Your task to perform on an android device: Open Google Maps and go to "Timeline" Image 0: 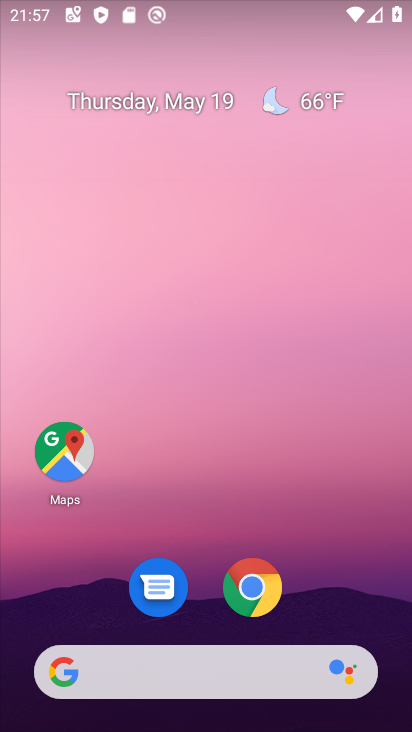
Step 0: click (384, 395)
Your task to perform on an android device: Open Google Maps and go to "Timeline" Image 1: 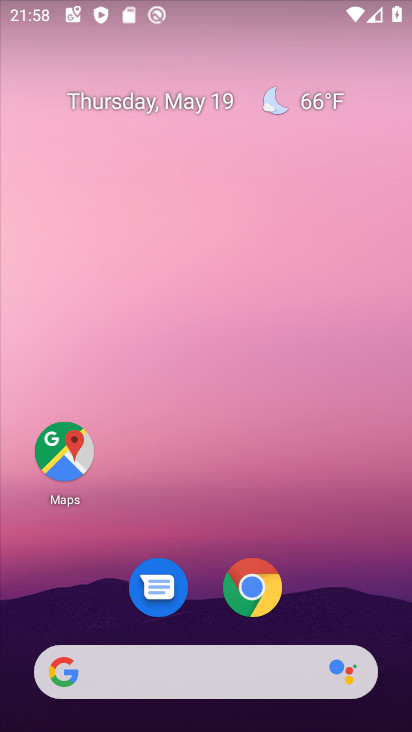
Step 1: drag from (256, 688) to (319, 223)
Your task to perform on an android device: Open Google Maps and go to "Timeline" Image 2: 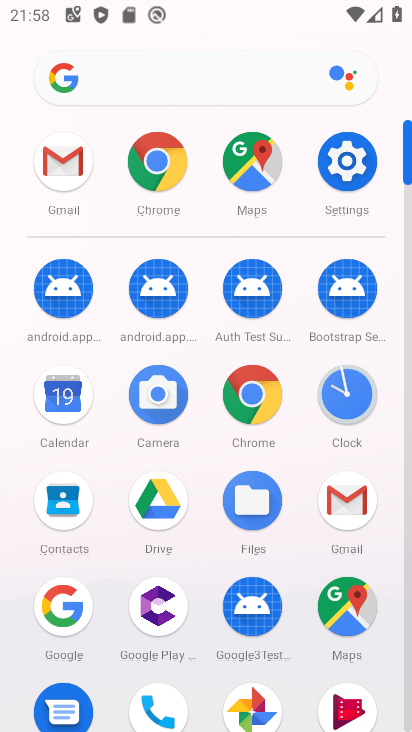
Step 2: click (254, 165)
Your task to perform on an android device: Open Google Maps and go to "Timeline" Image 3: 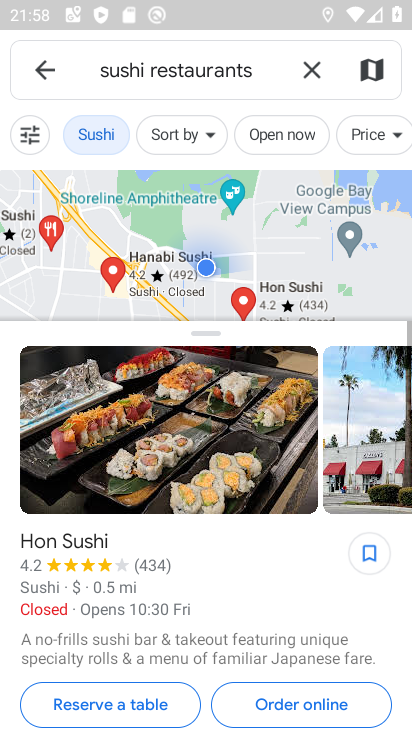
Step 3: click (37, 70)
Your task to perform on an android device: Open Google Maps and go to "Timeline" Image 4: 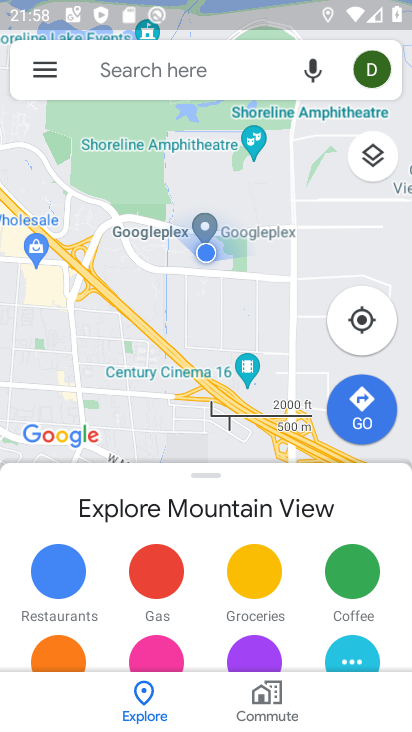
Step 4: click (37, 70)
Your task to perform on an android device: Open Google Maps and go to "Timeline" Image 5: 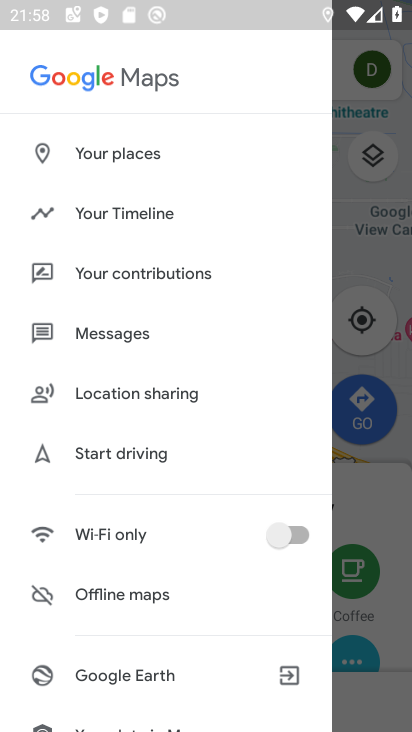
Step 5: click (163, 211)
Your task to perform on an android device: Open Google Maps and go to "Timeline" Image 6: 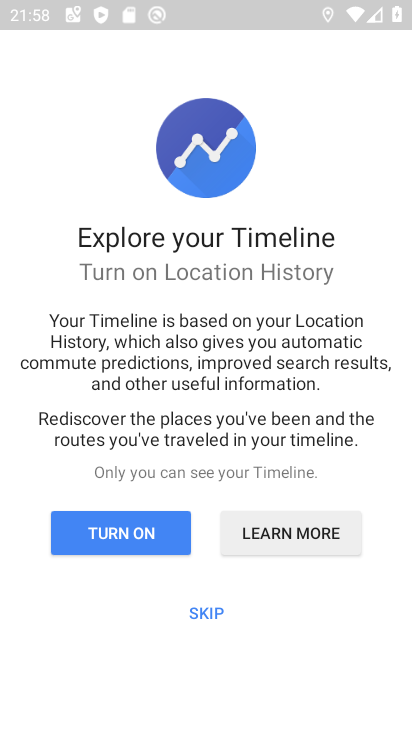
Step 6: click (220, 609)
Your task to perform on an android device: Open Google Maps and go to "Timeline" Image 7: 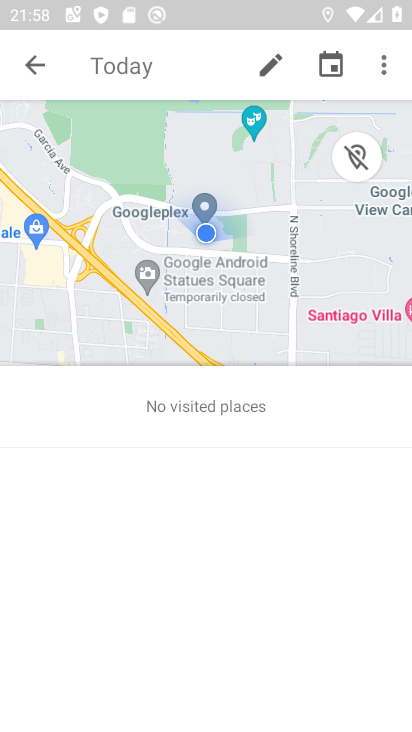
Step 7: task complete